Your task to perform on an android device: Open notification settings Image 0: 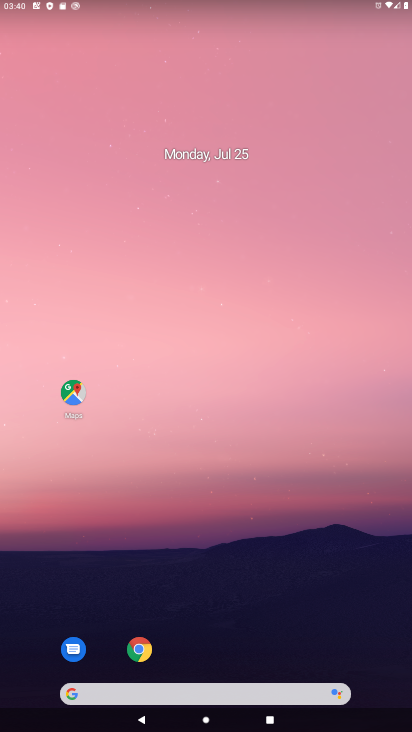
Step 0: drag from (373, 671) to (303, 97)
Your task to perform on an android device: Open notification settings Image 1: 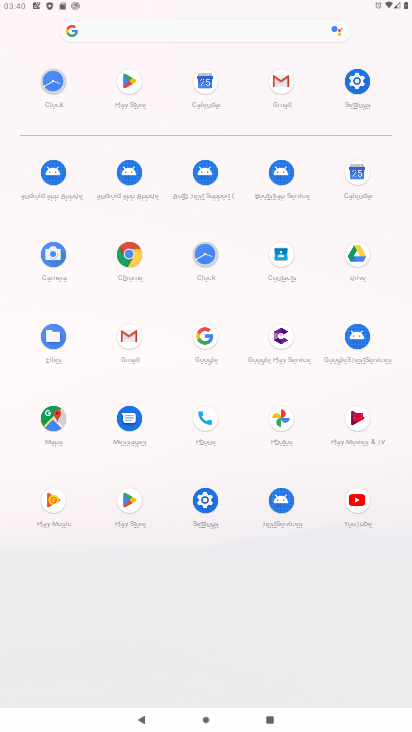
Step 1: click (205, 496)
Your task to perform on an android device: Open notification settings Image 2: 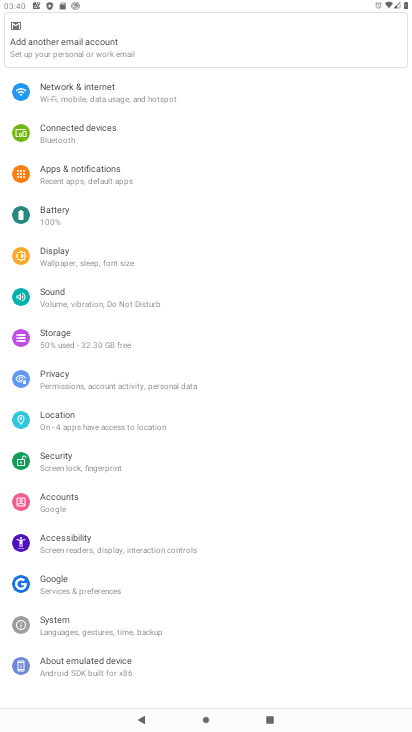
Step 2: click (102, 168)
Your task to perform on an android device: Open notification settings Image 3: 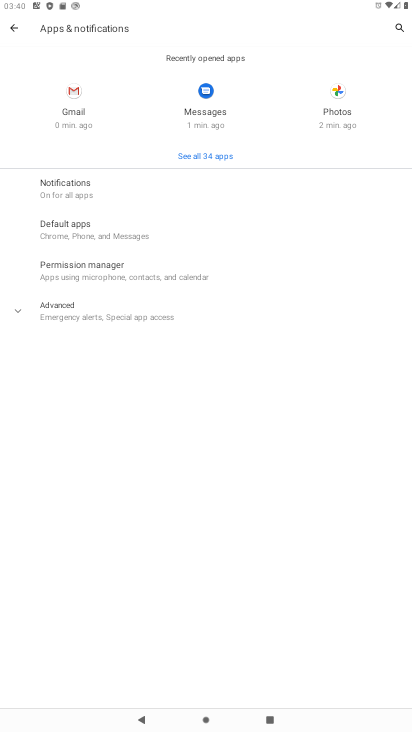
Step 3: click (65, 178)
Your task to perform on an android device: Open notification settings Image 4: 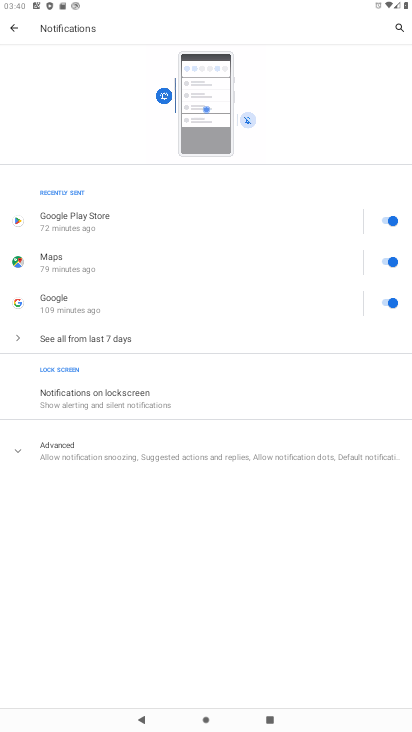
Step 4: click (15, 447)
Your task to perform on an android device: Open notification settings Image 5: 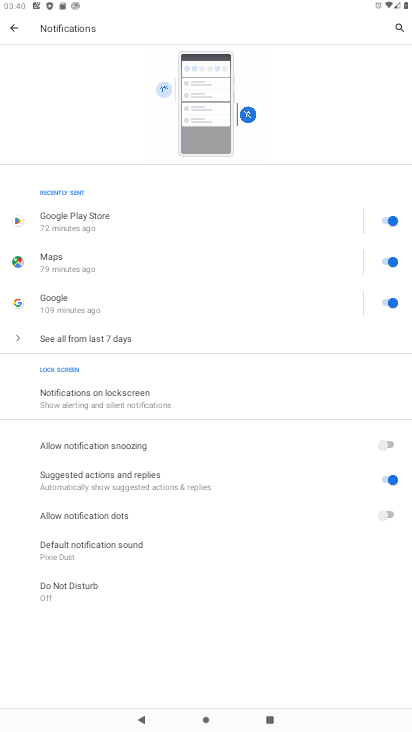
Step 5: task complete